Your task to perform on an android device: snooze an email in the gmail app Image 0: 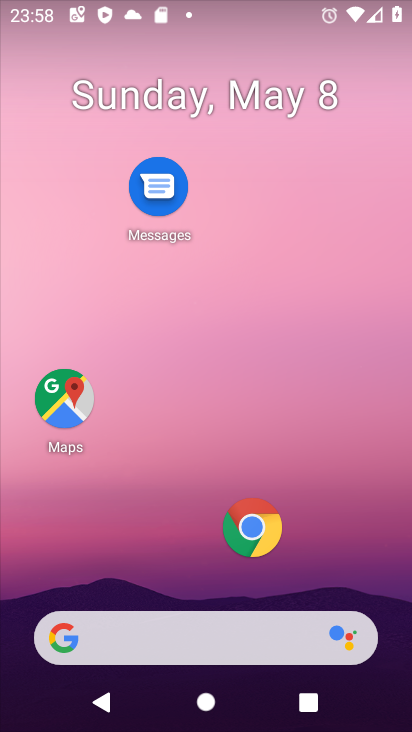
Step 0: drag from (191, 587) to (233, 129)
Your task to perform on an android device: snooze an email in the gmail app Image 1: 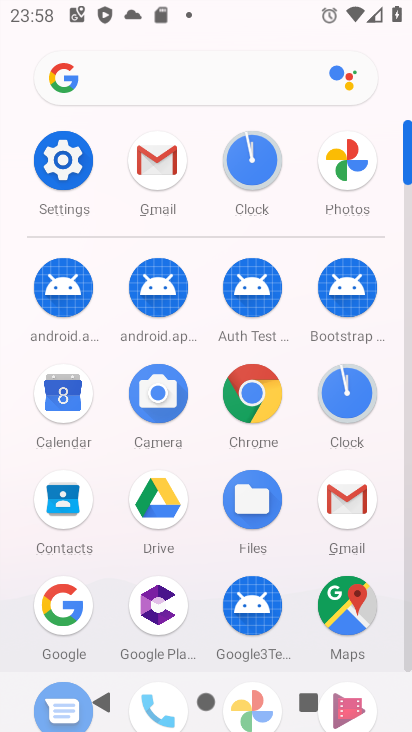
Step 1: click (157, 161)
Your task to perform on an android device: snooze an email in the gmail app Image 2: 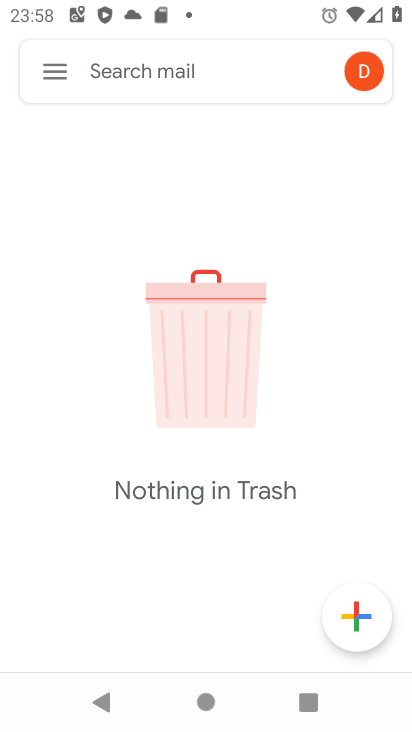
Step 2: click (71, 72)
Your task to perform on an android device: snooze an email in the gmail app Image 3: 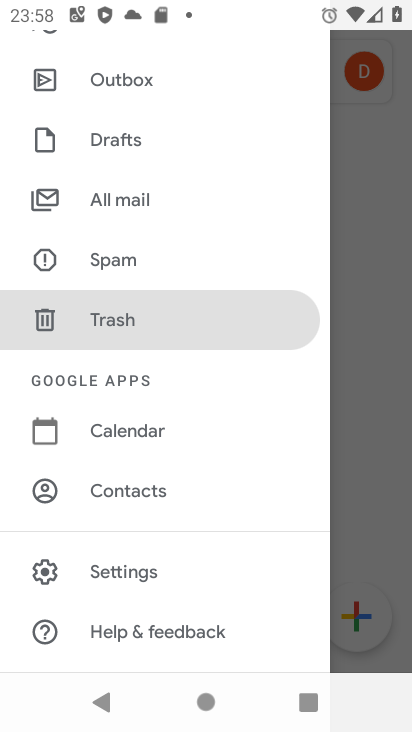
Step 3: drag from (159, 211) to (182, 550)
Your task to perform on an android device: snooze an email in the gmail app Image 4: 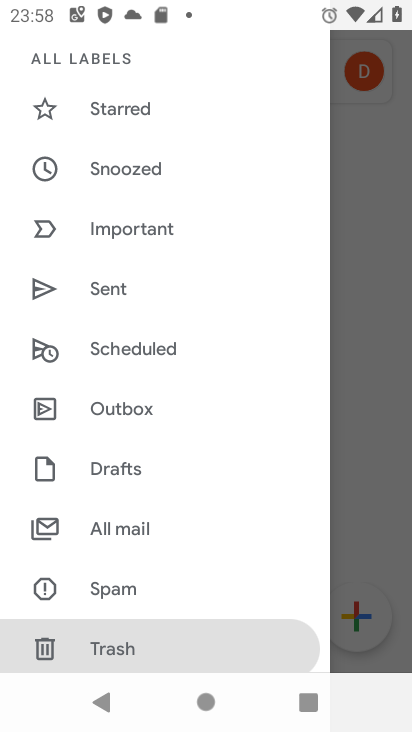
Step 4: click (118, 521)
Your task to perform on an android device: snooze an email in the gmail app Image 5: 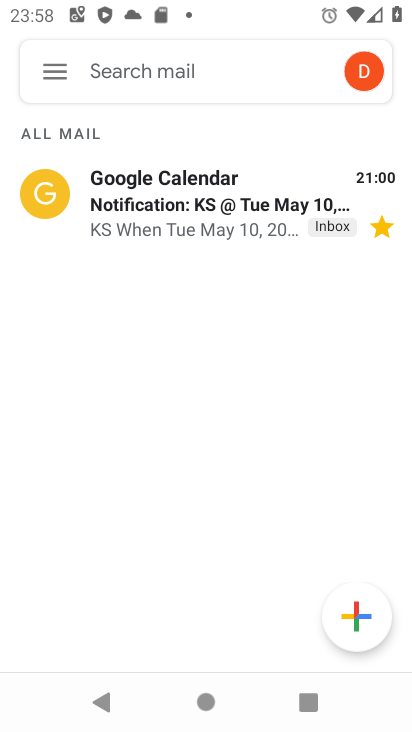
Step 5: click (186, 197)
Your task to perform on an android device: snooze an email in the gmail app Image 6: 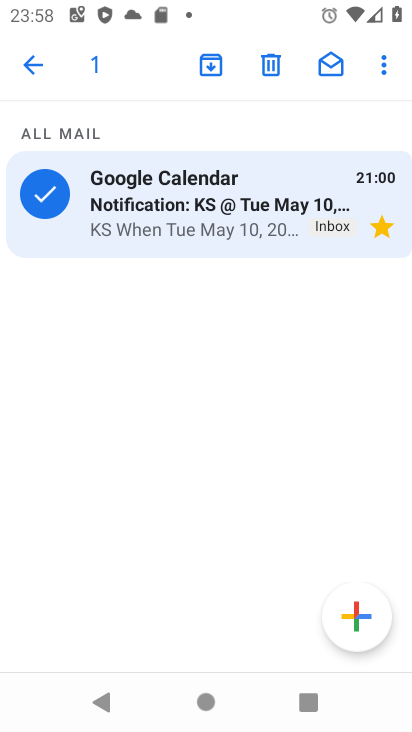
Step 6: click (369, 67)
Your task to perform on an android device: snooze an email in the gmail app Image 7: 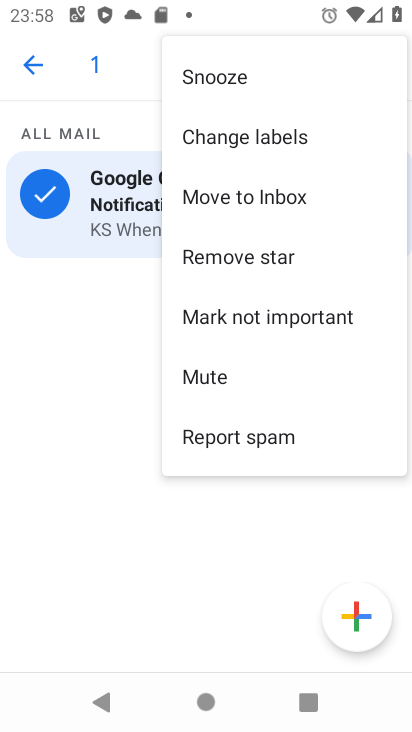
Step 7: click (245, 77)
Your task to perform on an android device: snooze an email in the gmail app Image 8: 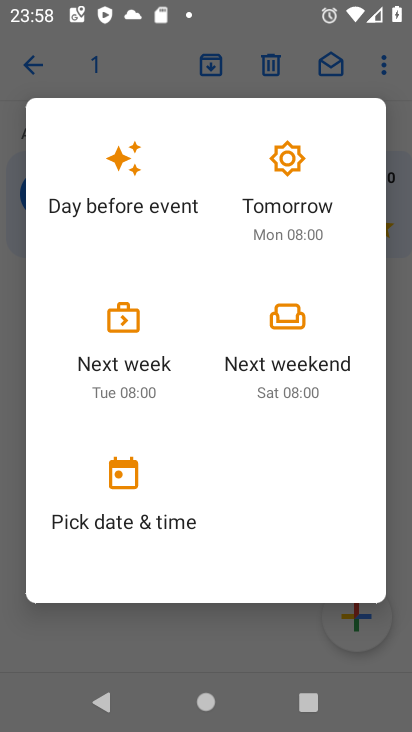
Step 8: click (267, 195)
Your task to perform on an android device: snooze an email in the gmail app Image 9: 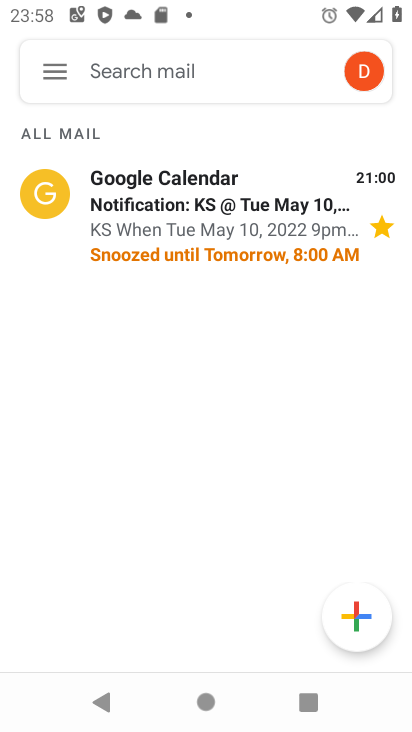
Step 9: task complete